Your task to perform on an android device: Open the stopwatch Image 0: 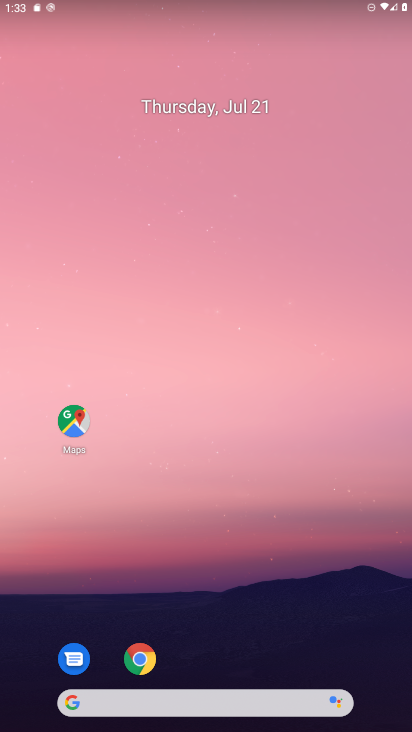
Step 0: drag from (315, 655) to (283, 310)
Your task to perform on an android device: Open the stopwatch Image 1: 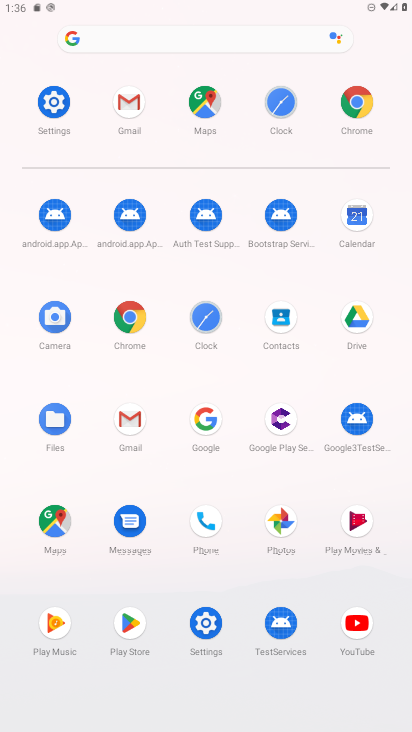
Step 1: task complete